Your task to perform on an android device: Open network settings Image 0: 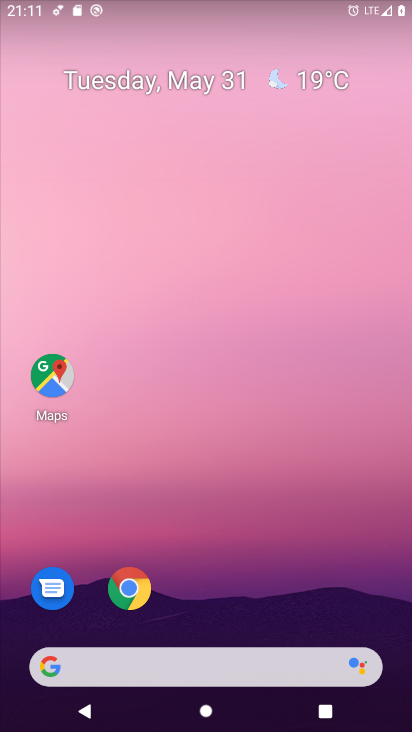
Step 0: drag from (194, 661) to (315, 82)
Your task to perform on an android device: Open network settings Image 1: 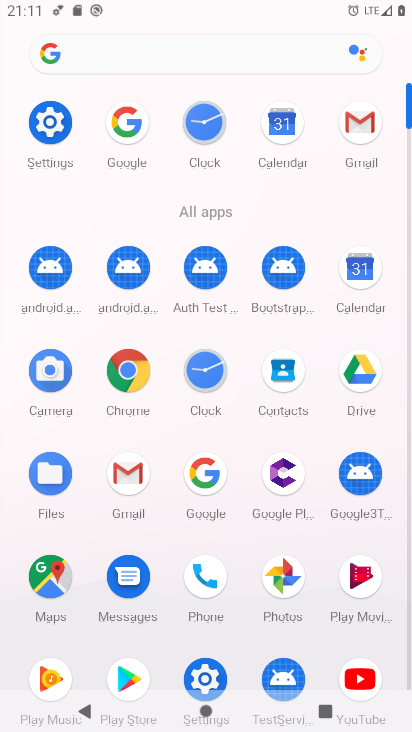
Step 1: click (45, 128)
Your task to perform on an android device: Open network settings Image 2: 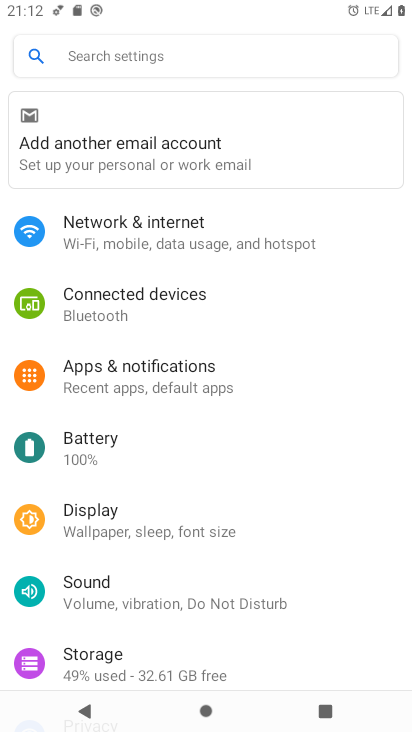
Step 2: click (164, 231)
Your task to perform on an android device: Open network settings Image 3: 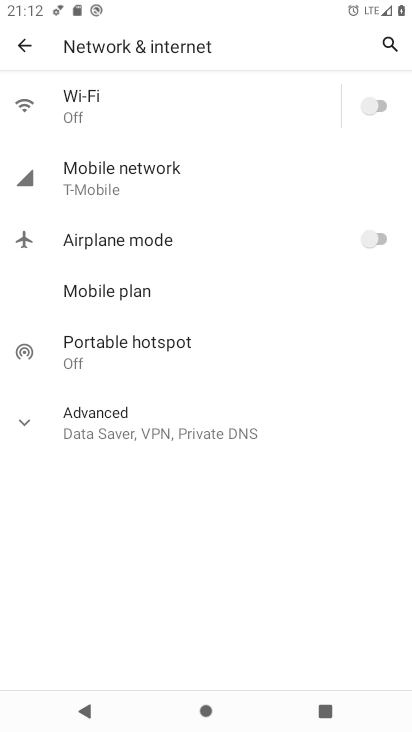
Step 3: task complete